Your task to perform on an android device: Open Amazon Image 0: 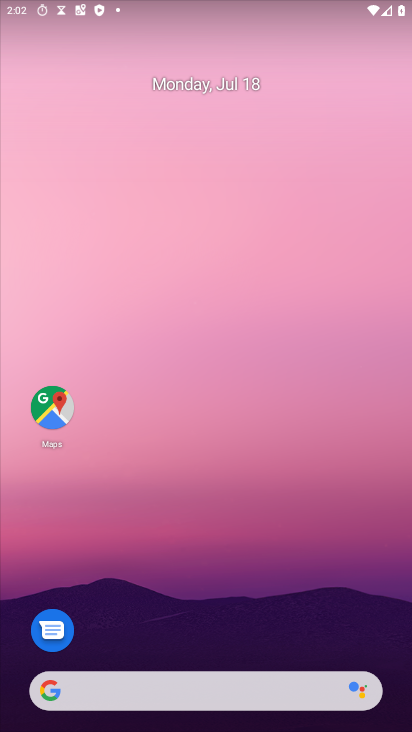
Step 0: drag from (224, 703) to (285, 48)
Your task to perform on an android device: Open Amazon Image 1: 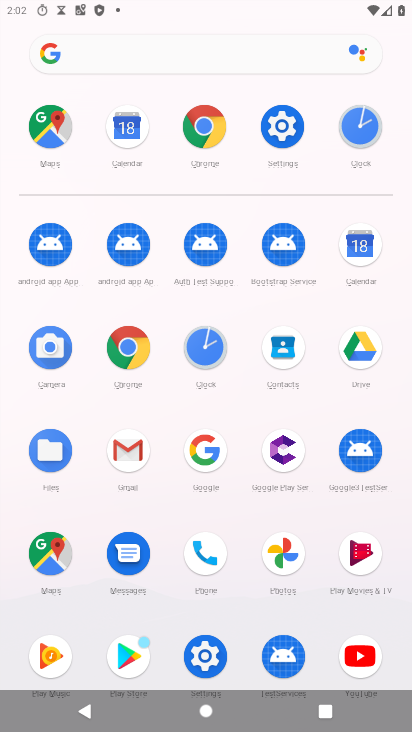
Step 1: click (133, 346)
Your task to perform on an android device: Open Amazon Image 2: 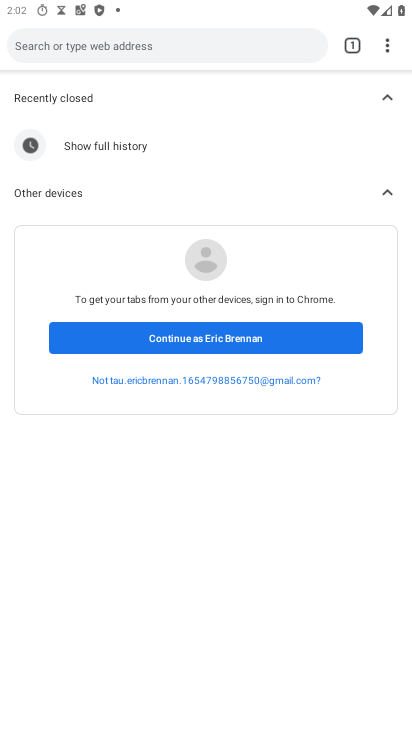
Step 2: click (245, 47)
Your task to perform on an android device: Open Amazon Image 3: 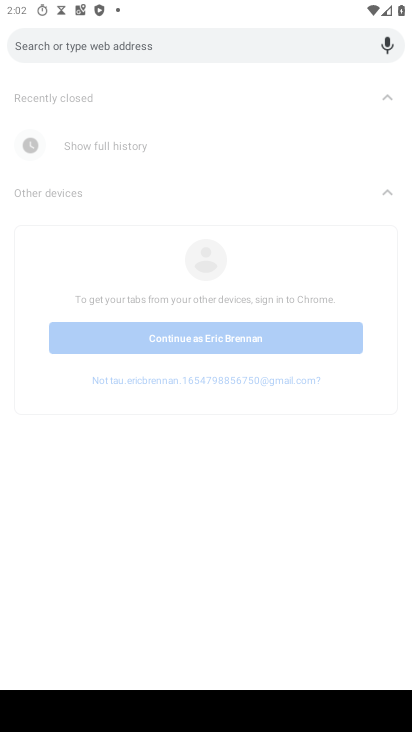
Step 3: type "amazon"
Your task to perform on an android device: Open Amazon Image 4: 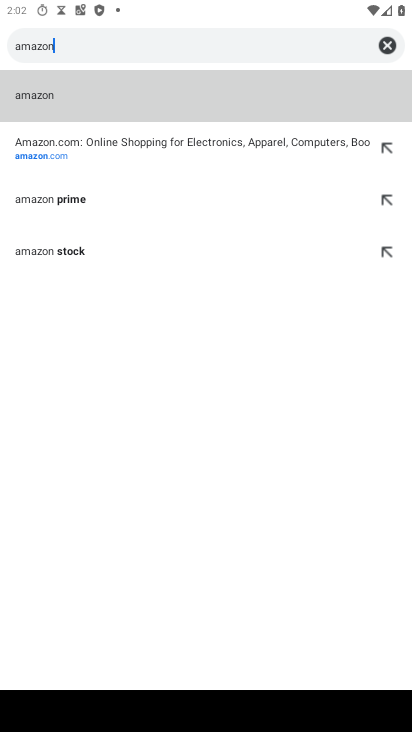
Step 4: click (54, 162)
Your task to perform on an android device: Open Amazon Image 5: 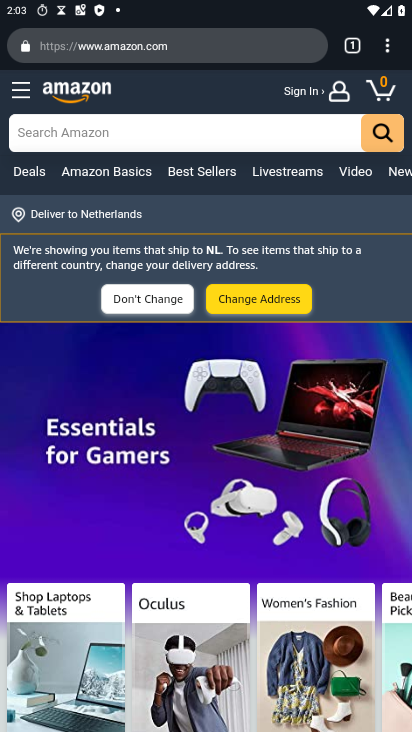
Step 5: task complete